Your task to perform on an android device: Go to sound settings Image 0: 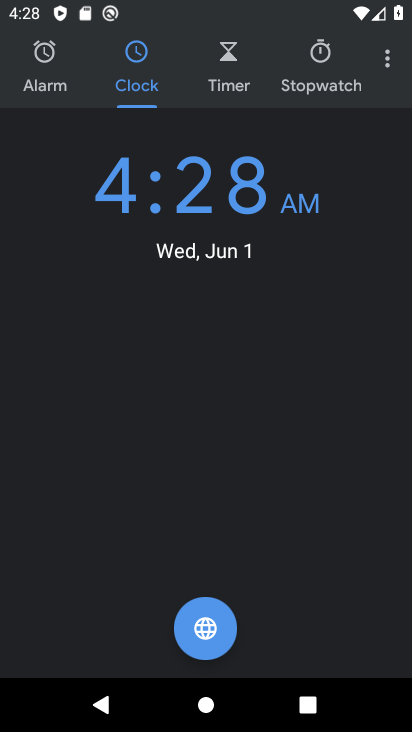
Step 0: press back button
Your task to perform on an android device: Go to sound settings Image 1: 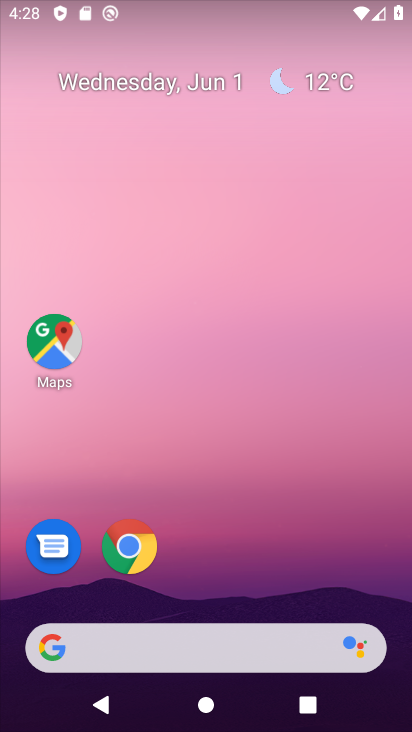
Step 1: drag from (270, 579) to (218, 38)
Your task to perform on an android device: Go to sound settings Image 2: 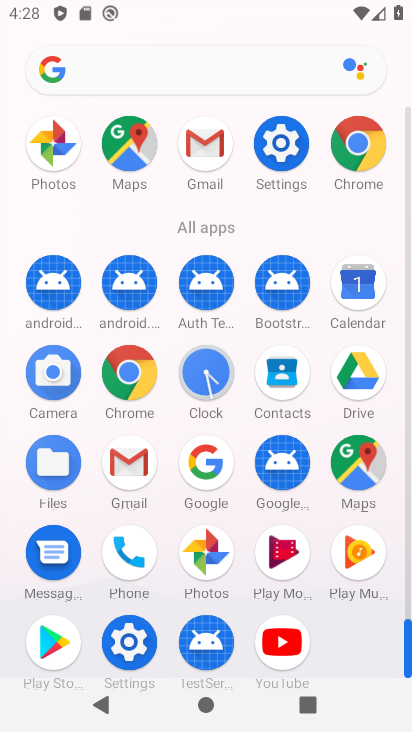
Step 2: drag from (3, 499) to (20, 153)
Your task to perform on an android device: Go to sound settings Image 3: 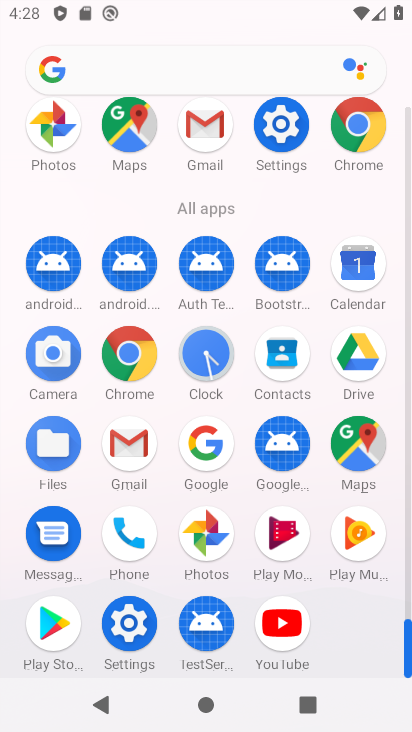
Step 3: click (124, 619)
Your task to perform on an android device: Go to sound settings Image 4: 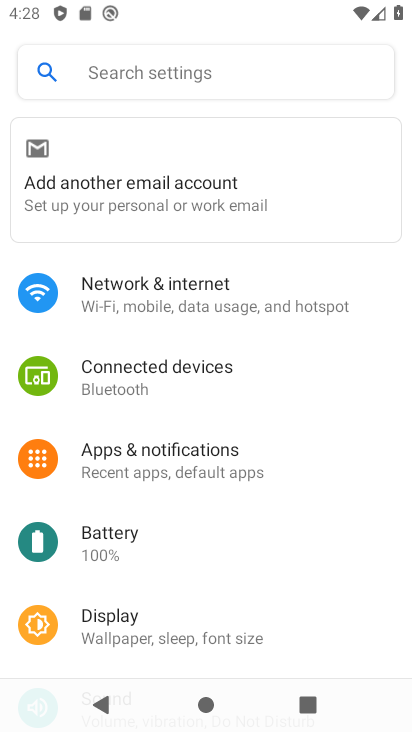
Step 4: drag from (270, 564) to (275, 249)
Your task to perform on an android device: Go to sound settings Image 5: 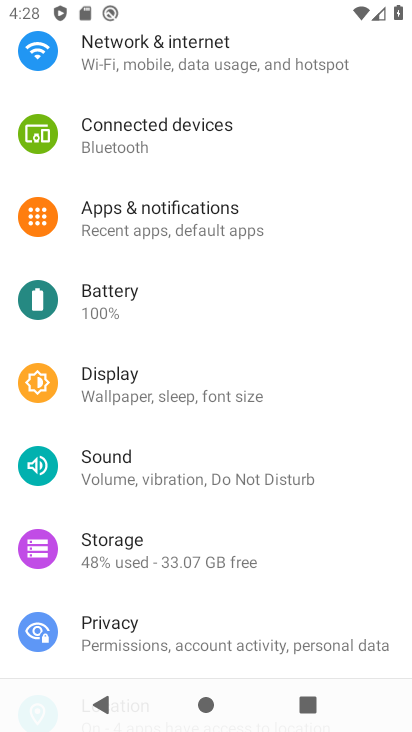
Step 5: click (139, 466)
Your task to perform on an android device: Go to sound settings Image 6: 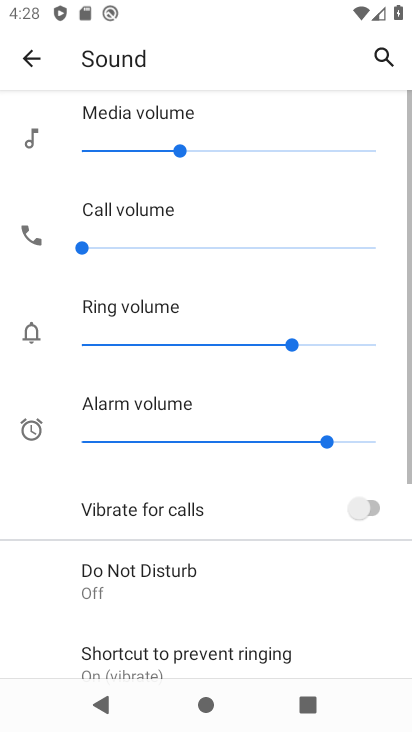
Step 6: drag from (224, 555) to (224, 106)
Your task to perform on an android device: Go to sound settings Image 7: 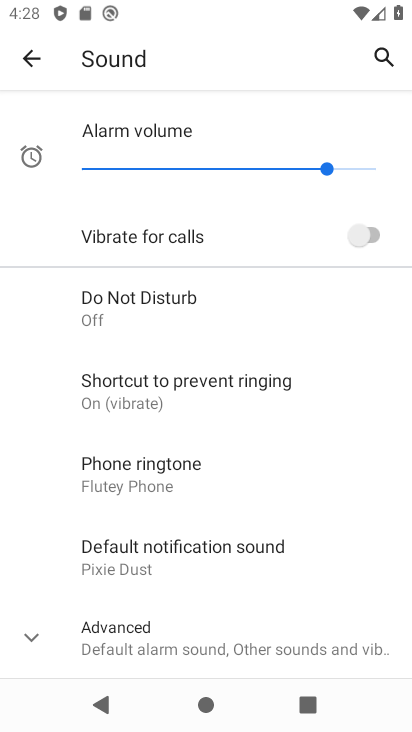
Step 7: drag from (178, 531) to (202, 144)
Your task to perform on an android device: Go to sound settings Image 8: 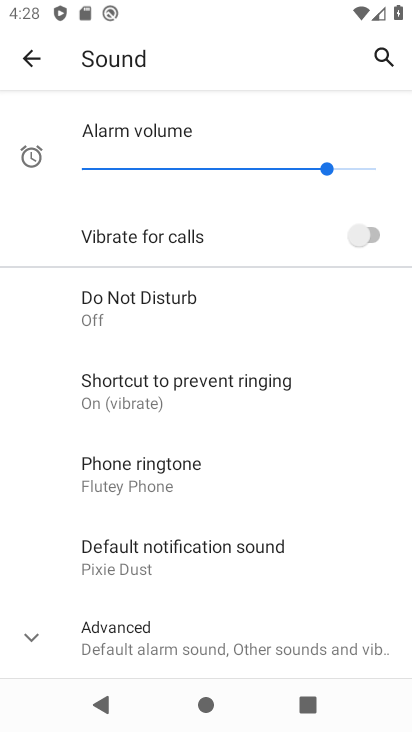
Step 8: click (41, 625)
Your task to perform on an android device: Go to sound settings Image 9: 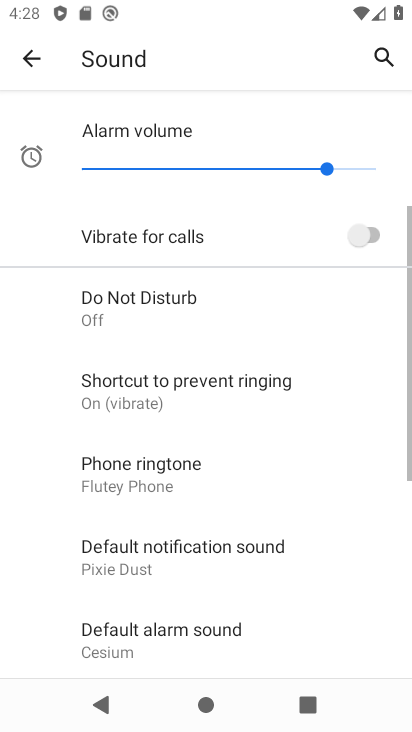
Step 9: task complete